Your task to perform on an android device: Search for asus rog on amazon.com, select the first entry, add it to the cart, then select checkout. Image 0: 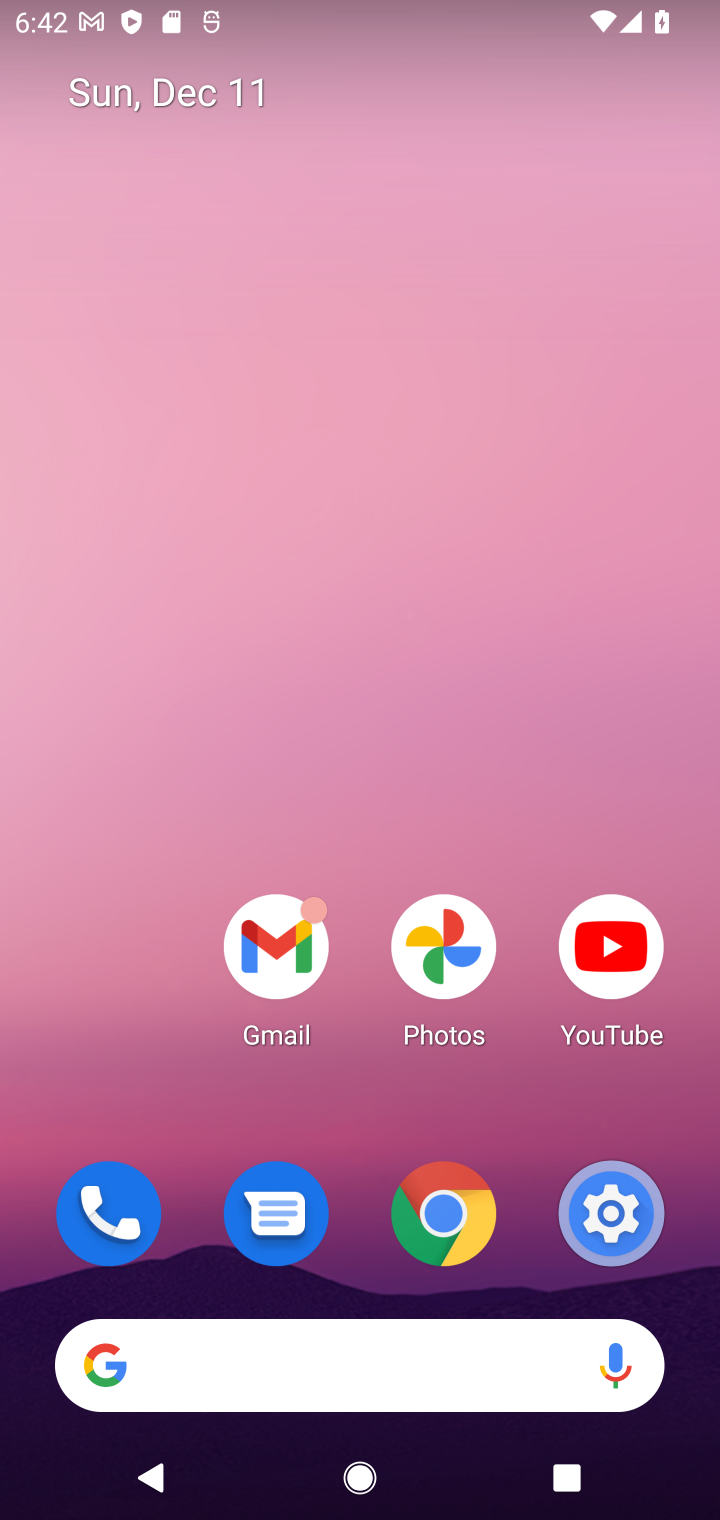
Step 0: click (473, 1384)
Your task to perform on an android device: Search for asus rog on amazon.com, select the first entry, add it to the cart, then select checkout. Image 1: 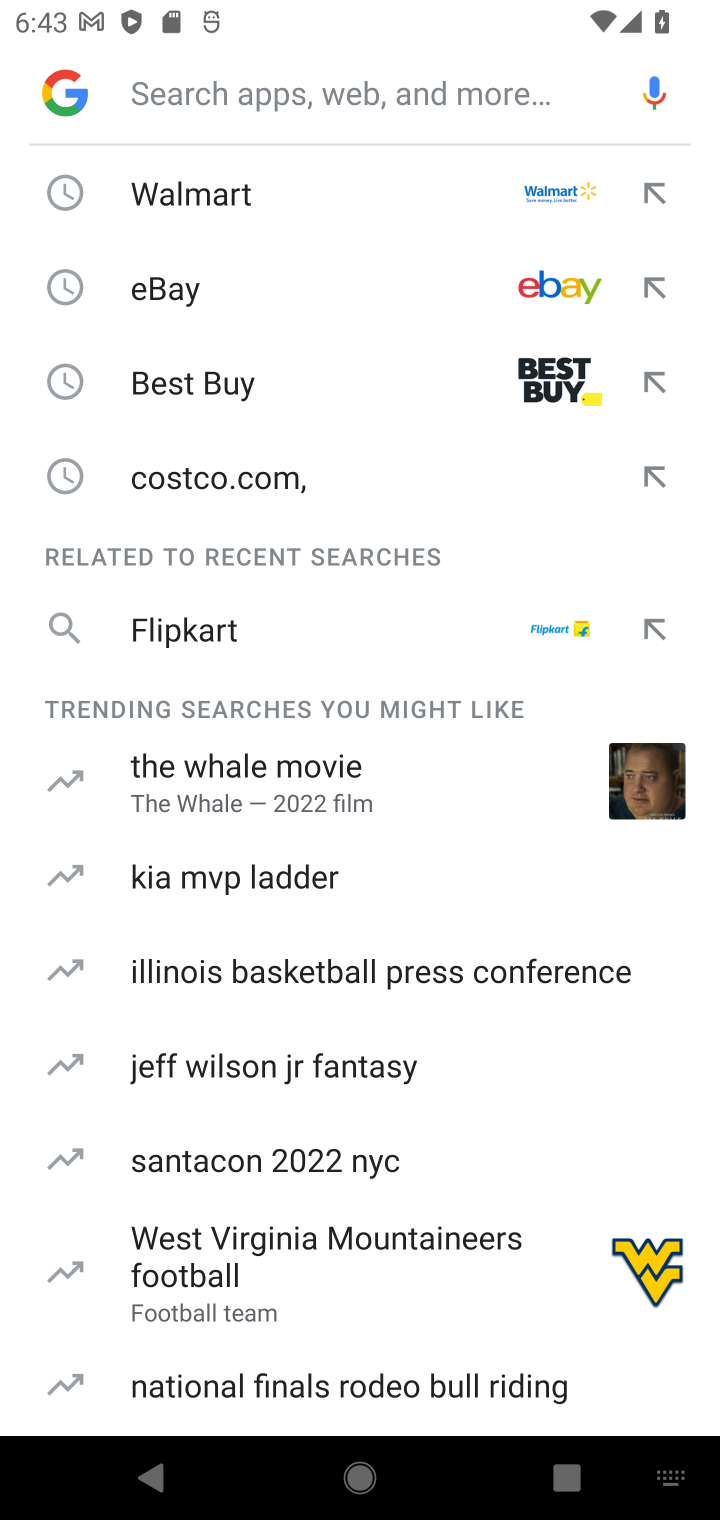
Step 1: type "amazon"
Your task to perform on an android device: Search for asus rog on amazon.com, select the first entry, add it to the cart, then select checkout. Image 2: 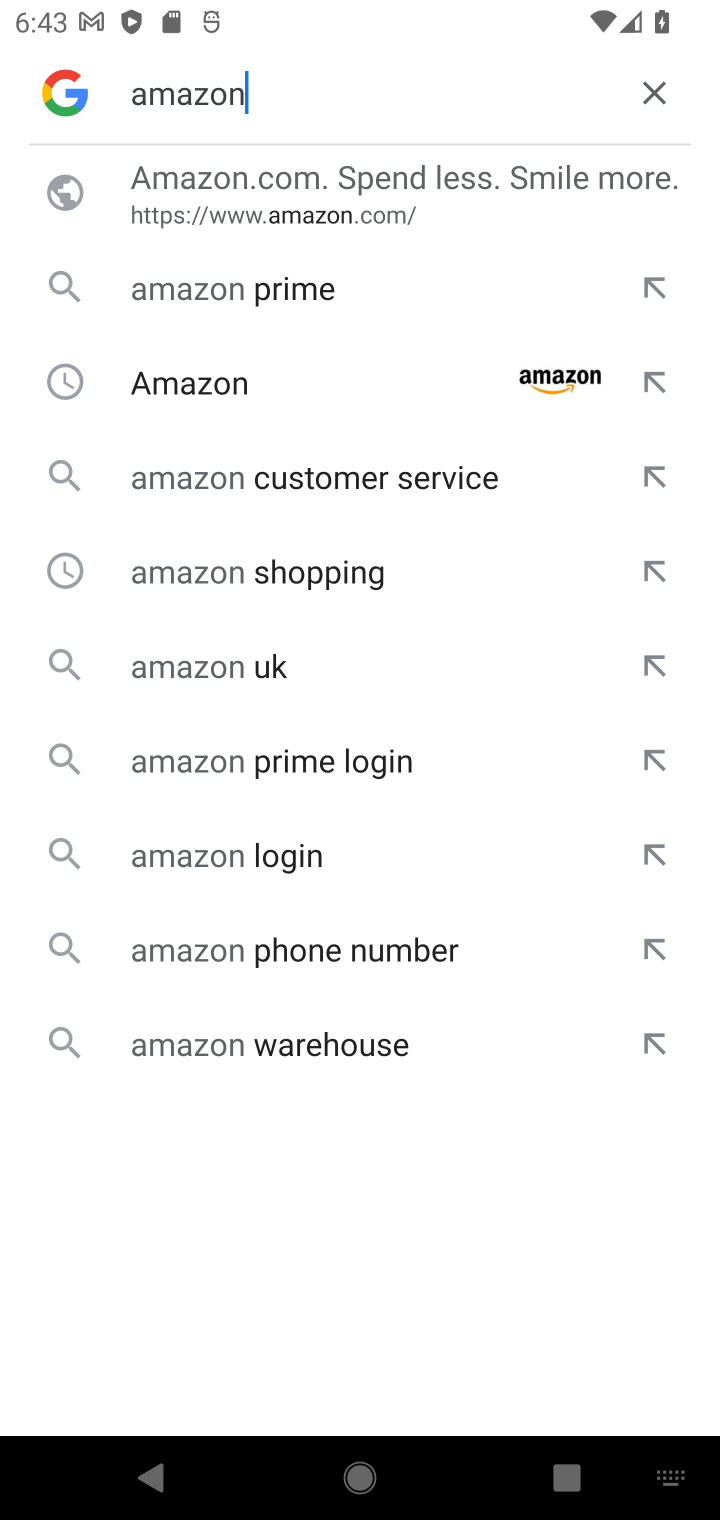
Step 2: click (221, 239)
Your task to perform on an android device: Search for asus rog on amazon.com, select the first entry, add it to the cart, then select checkout. Image 3: 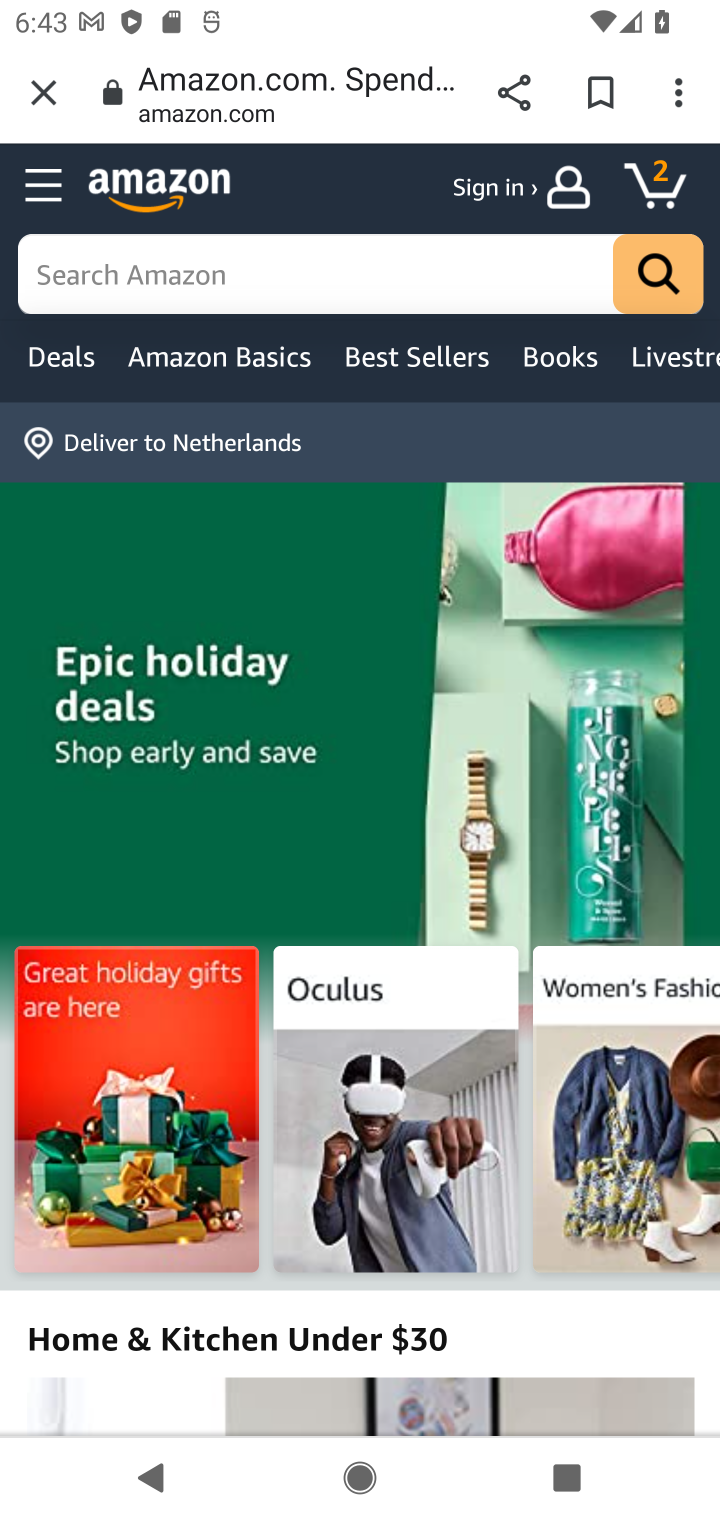
Step 3: click (270, 284)
Your task to perform on an android device: Search for asus rog on amazon.com, select the first entry, add it to the cart, then select checkout. Image 4: 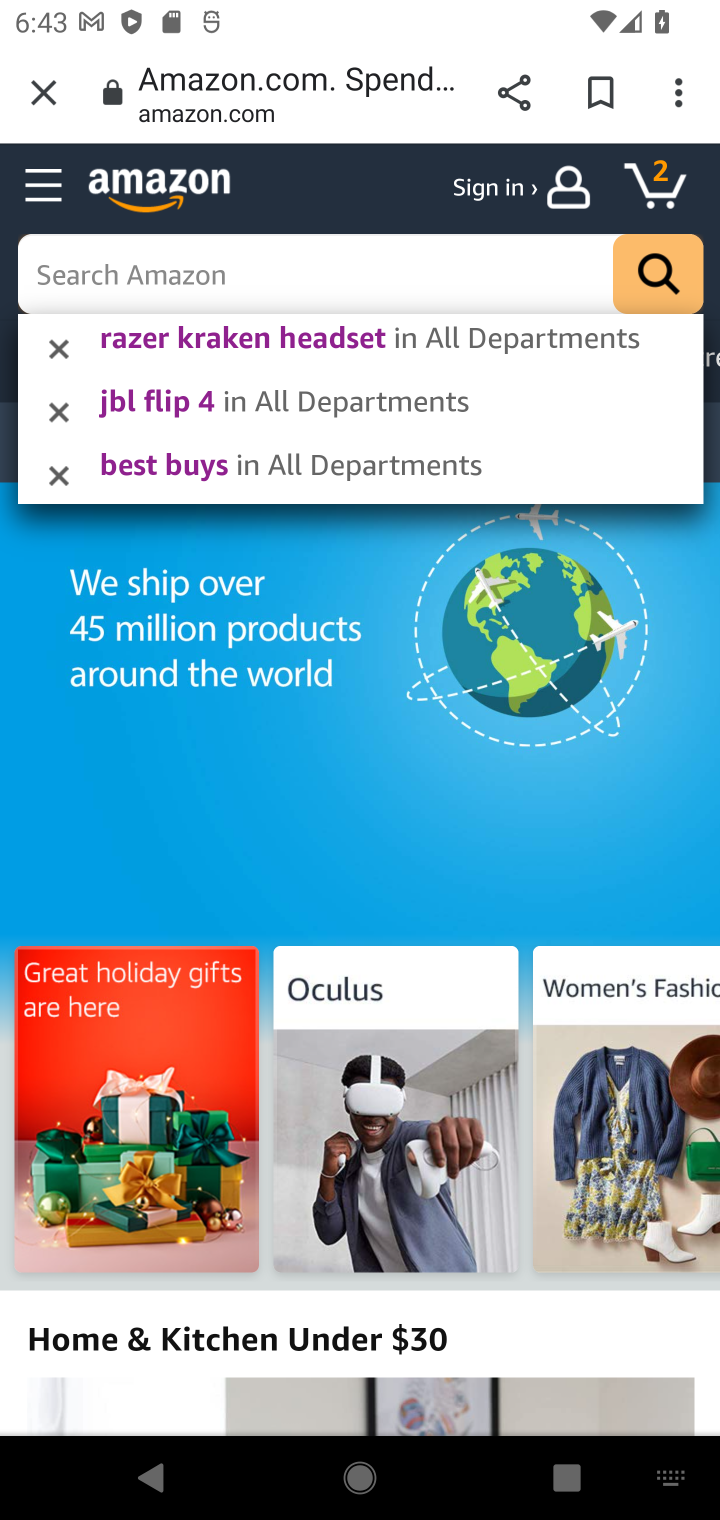
Step 4: type "asus rog"
Your task to perform on an android device: Search for asus rog on amazon.com, select the first entry, add it to the cart, then select checkout. Image 5: 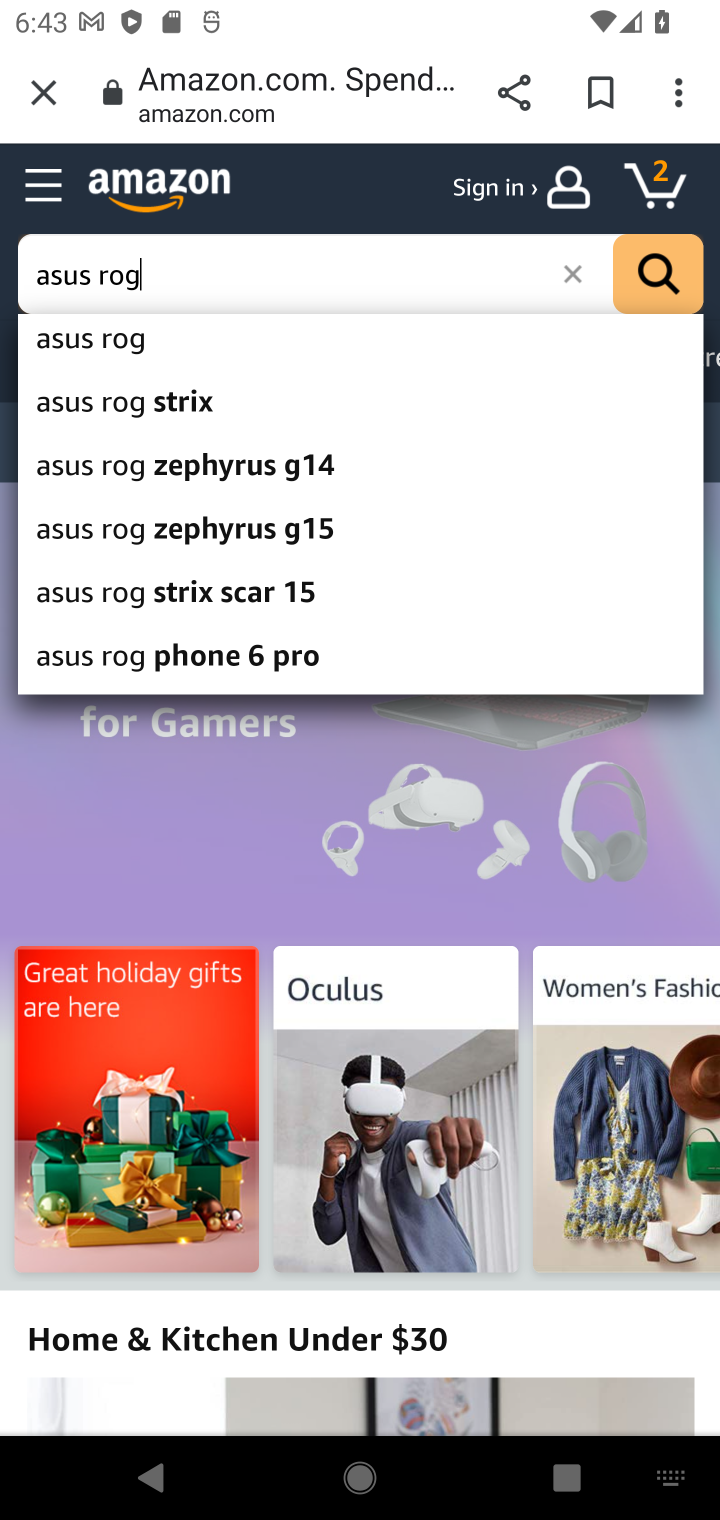
Step 5: click (656, 289)
Your task to perform on an android device: Search for asus rog on amazon.com, select the first entry, add it to the cart, then select checkout. Image 6: 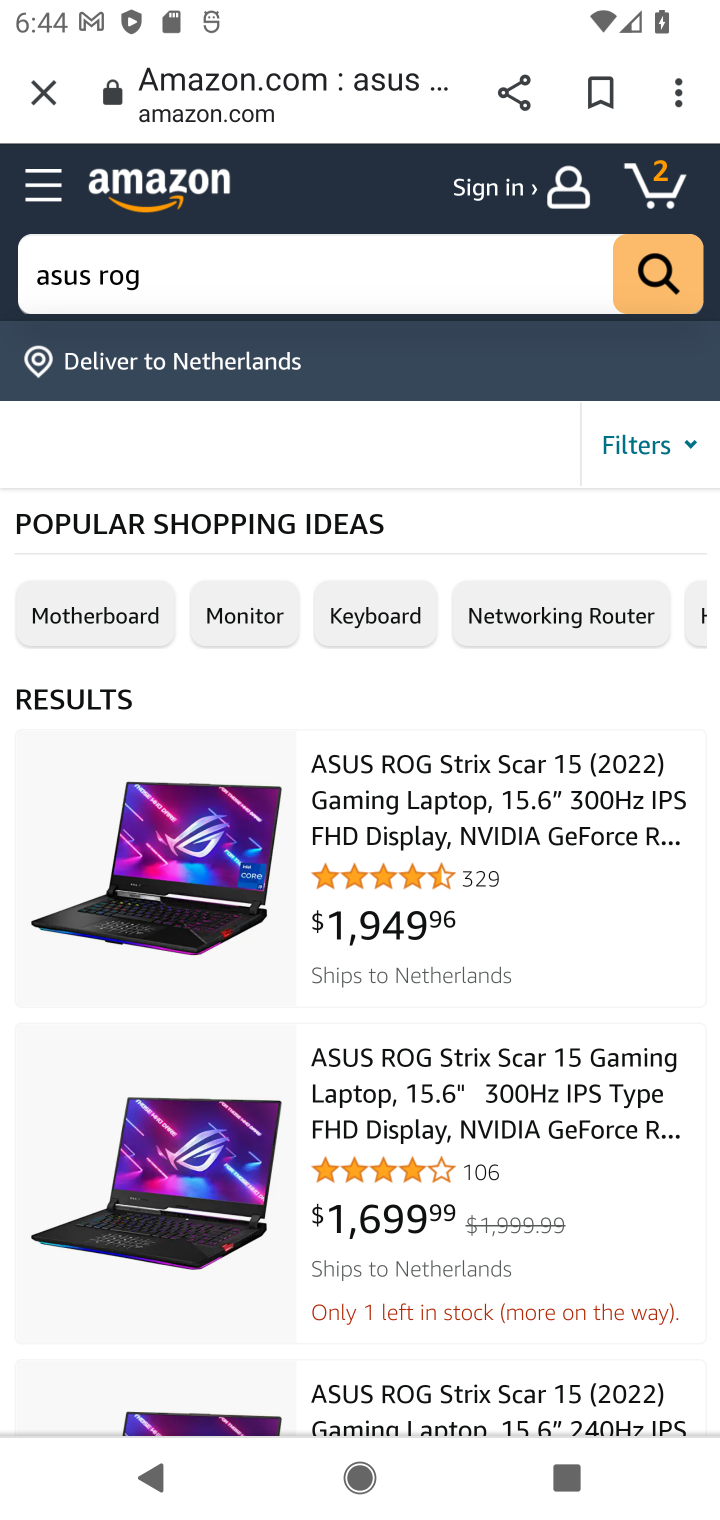
Step 6: click (487, 778)
Your task to perform on an android device: Search for asus rog on amazon.com, select the first entry, add it to the cart, then select checkout. Image 7: 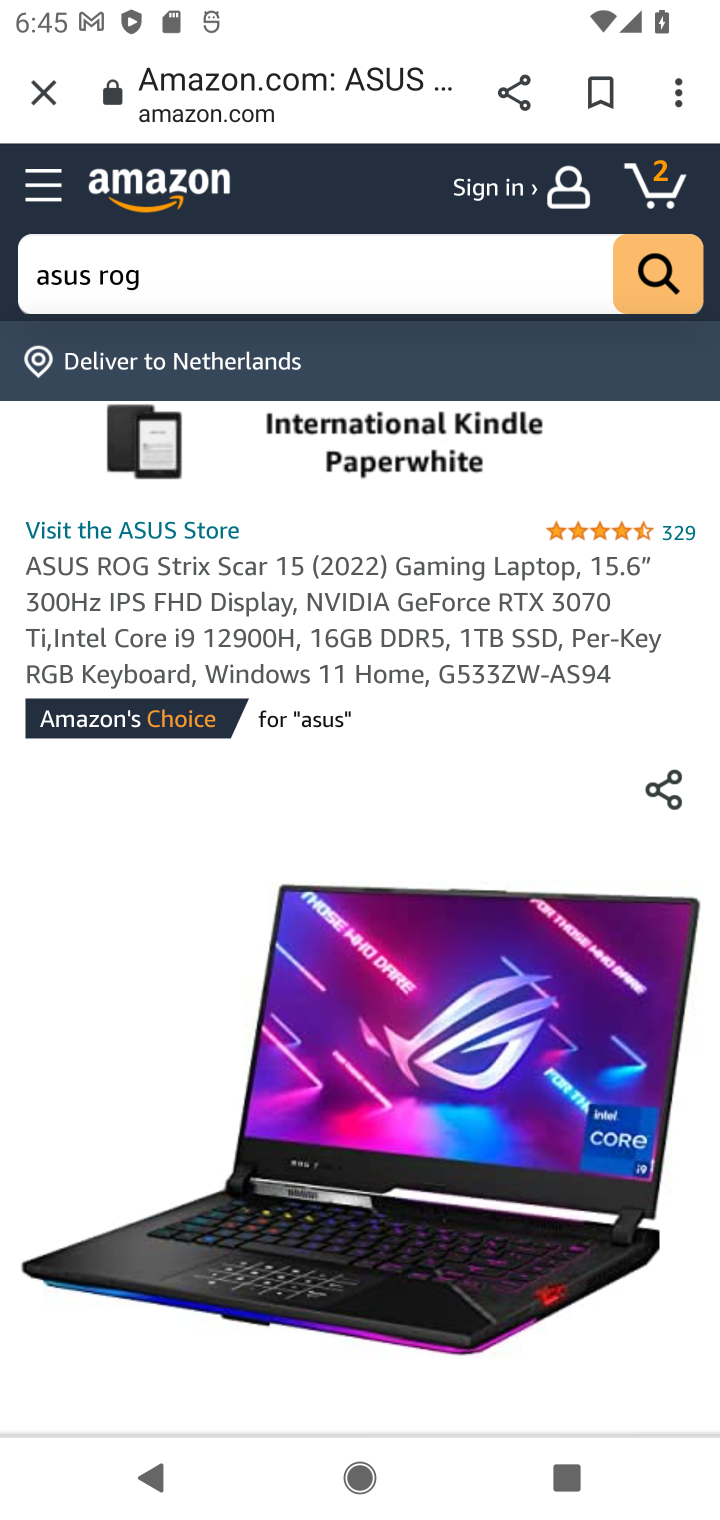
Step 7: drag from (405, 1075) to (461, 209)
Your task to perform on an android device: Search for asus rog on amazon.com, select the first entry, add it to the cart, then select checkout. Image 8: 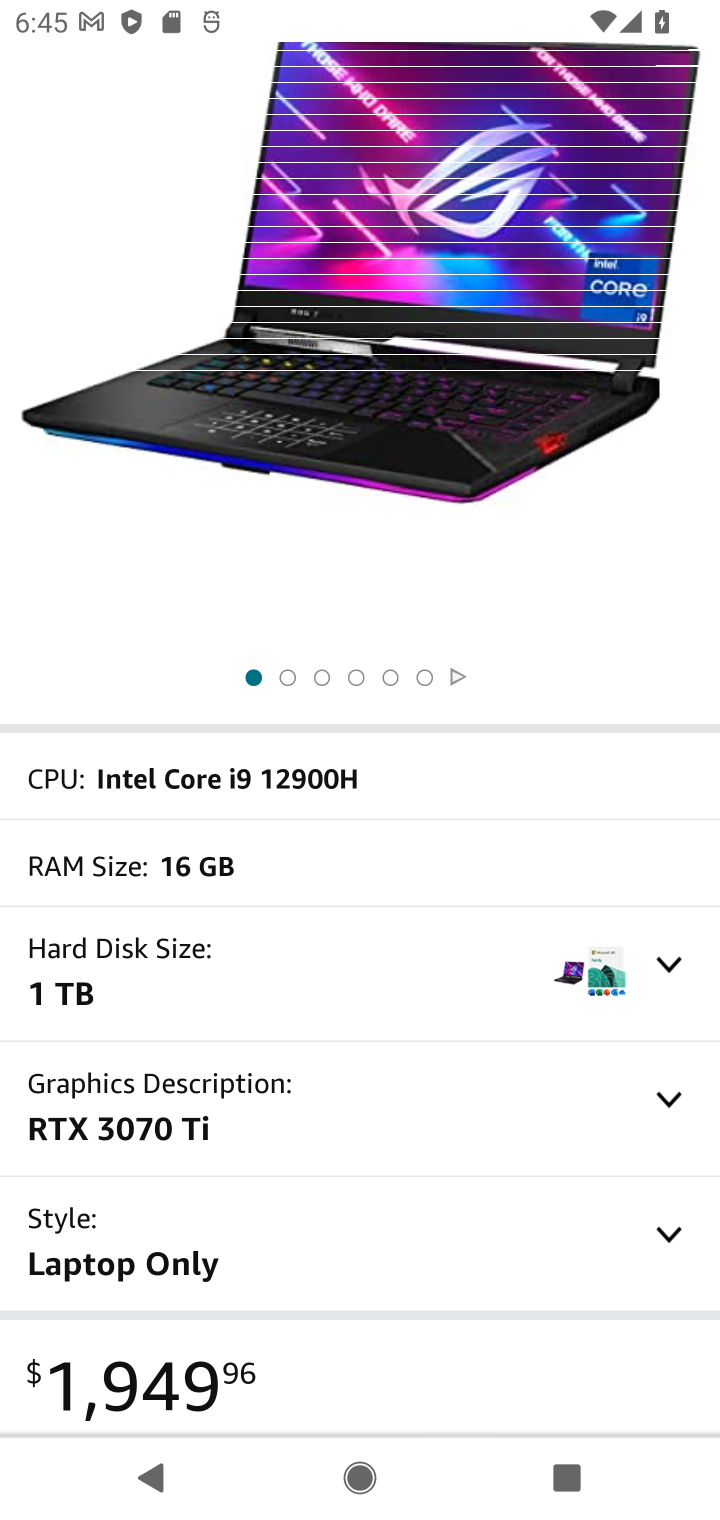
Step 8: drag from (493, 1190) to (471, 487)
Your task to perform on an android device: Search for asus rog on amazon.com, select the first entry, add it to the cart, then select checkout. Image 9: 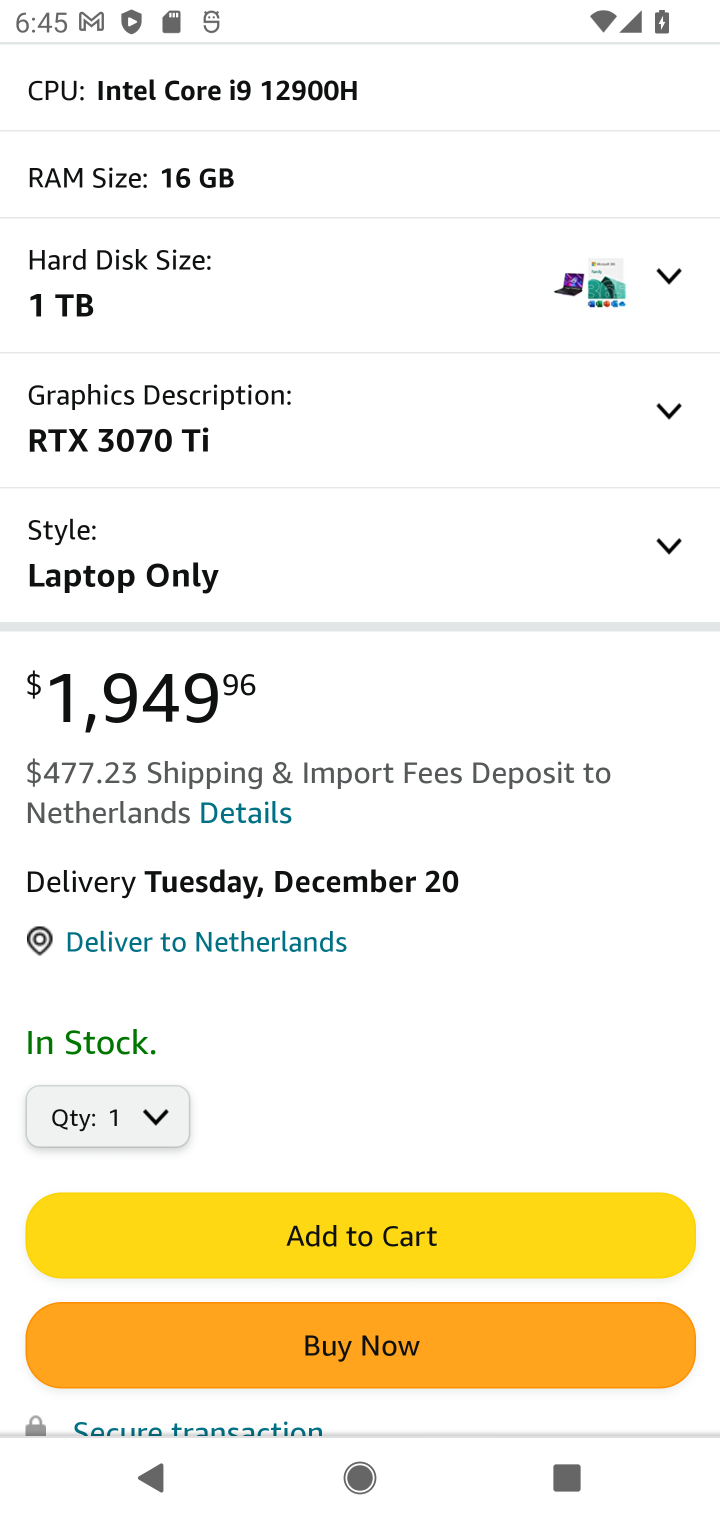
Step 9: click (521, 1209)
Your task to perform on an android device: Search for asus rog on amazon.com, select the first entry, add it to the cart, then select checkout. Image 10: 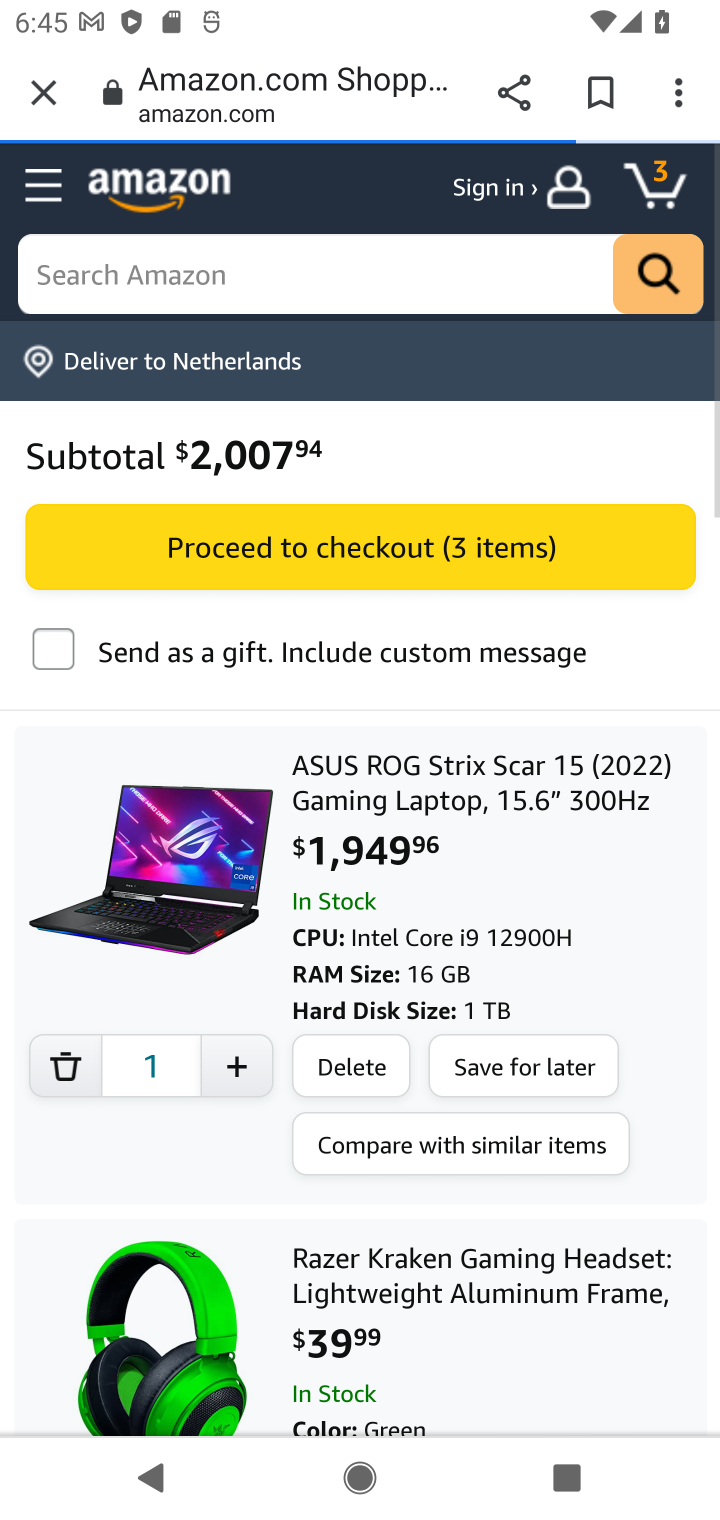
Step 10: task complete